Your task to perform on an android device: Open battery settings Image 0: 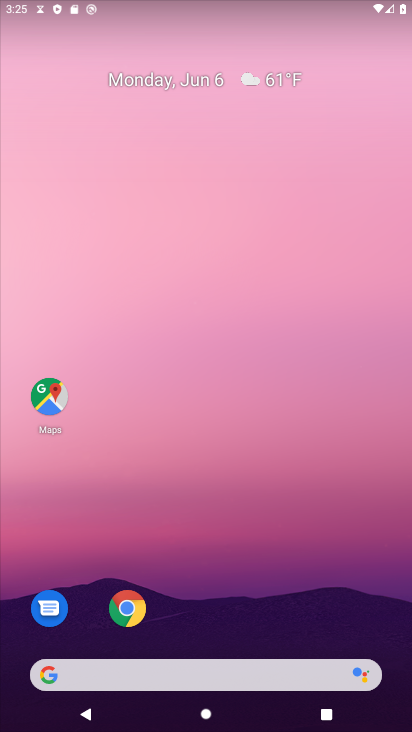
Step 0: drag from (210, 612) to (307, 33)
Your task to perform on an android device: Open battery settings Image 1: 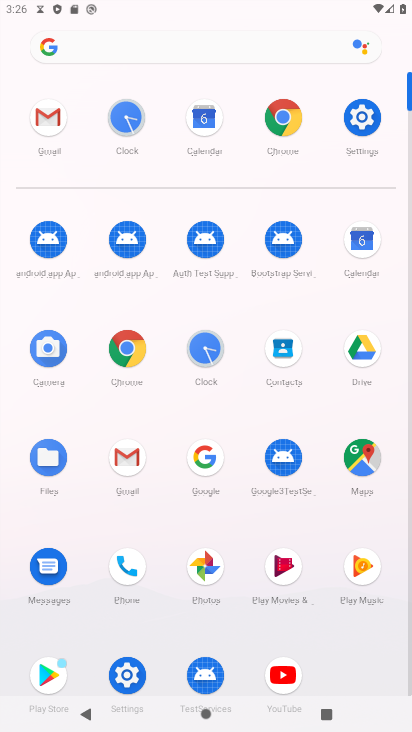
Step 1: click (364, 120)
Your task to perform on an android device: Open battery settings Image 2: 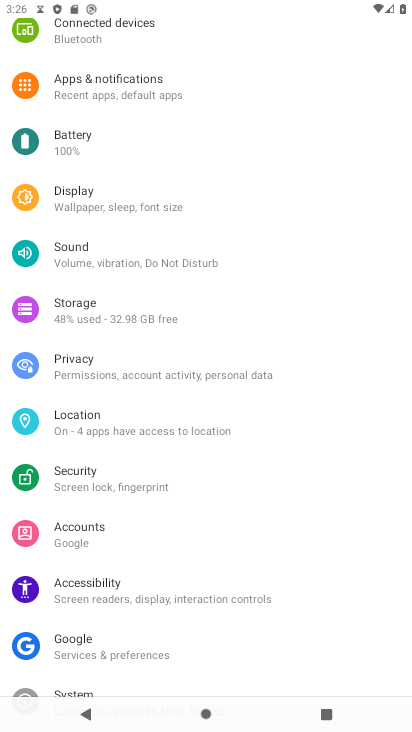
Step 2: click (142, 151)
Your task to perform on an android device: Open battery settings Image 3: 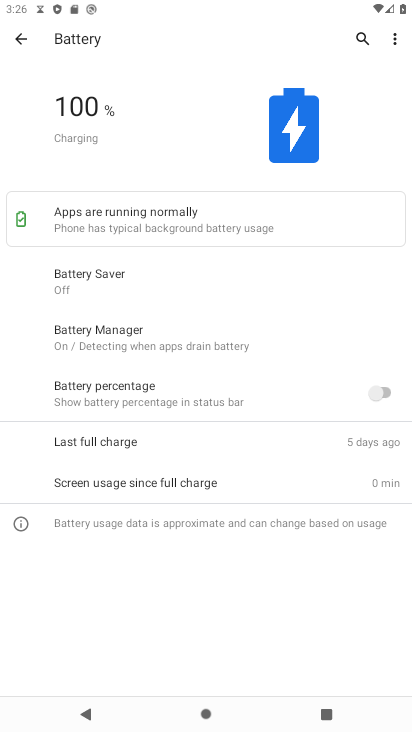
Step 3: task complete